Your task to perform on an android device: Open notification settings Image 0: 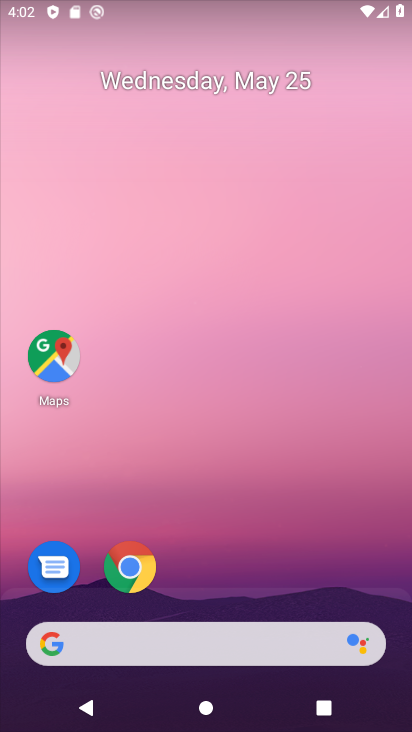
Step 0: drag from (213, 506) to (177, 36)
Your task to perform on an android device: Open notification settings Image 1: 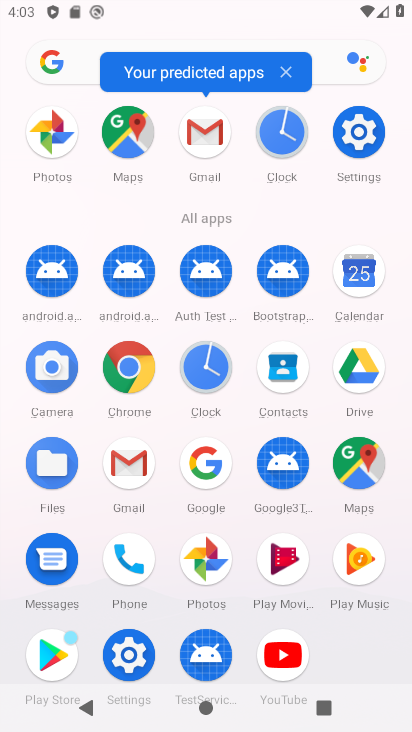
Step 1: drag from (0, 569) to (26, 252)
Your task to perform on an android device: Open notification settings Image 2: 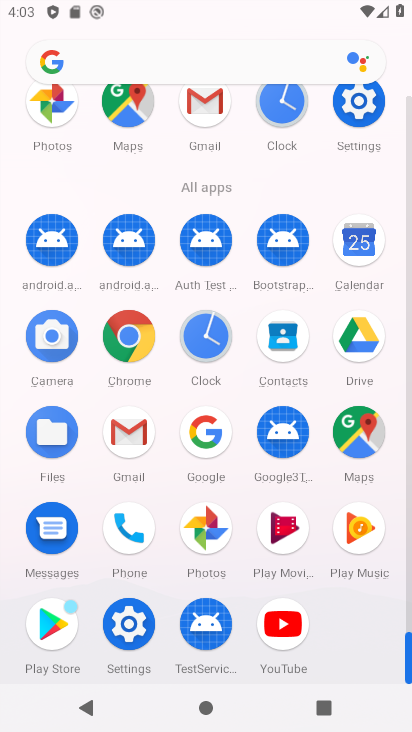
Step 2: click (127, 622)
Your task to perform on an android device: Open notification settings Image 3: 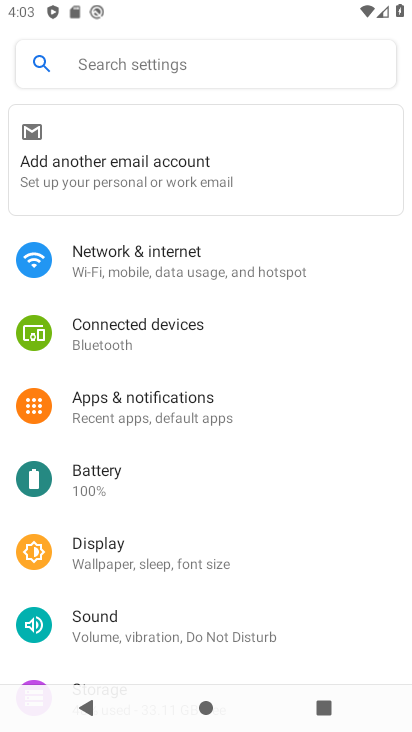
Step 3: click (155, 402)
Your task to perform on an android device: Open notification settings Image 4: 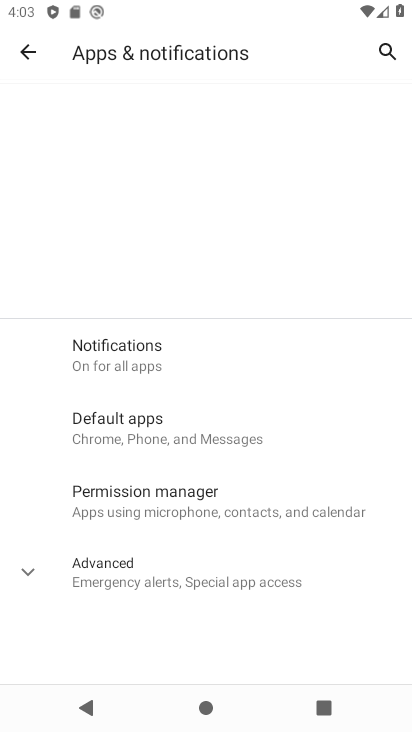
Step 4: click (40, 548)
Your task to perform on an android device: Open notification settings Image 5: 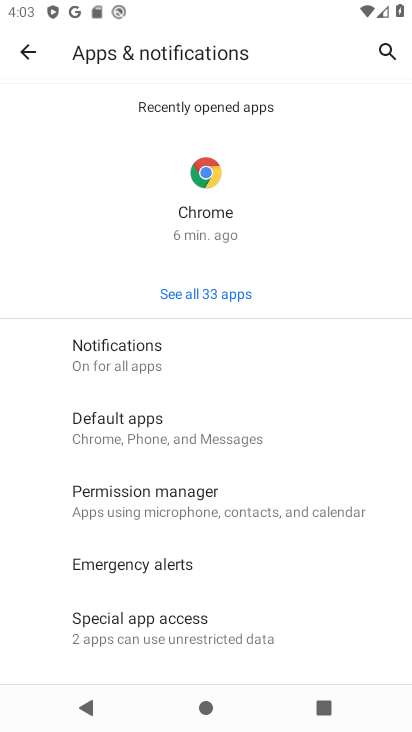
Step 5: click (161, 346)
Your task to perform on an android device: Open notification settings Image 6: 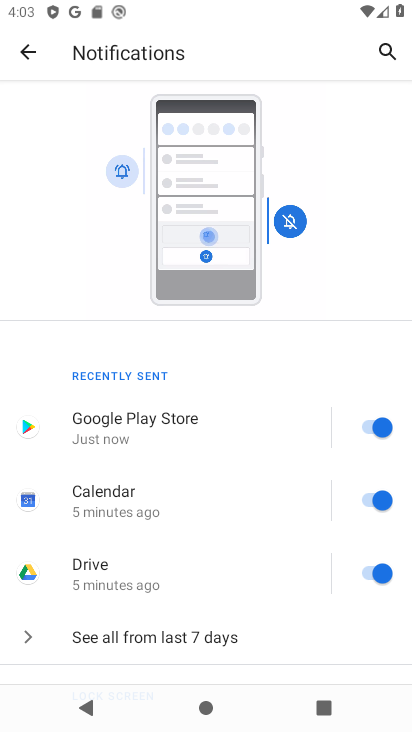
Step 6: drag from (205, 590) to (195, 140)
Your task to perform on an android device: Open notification settings Image 7: 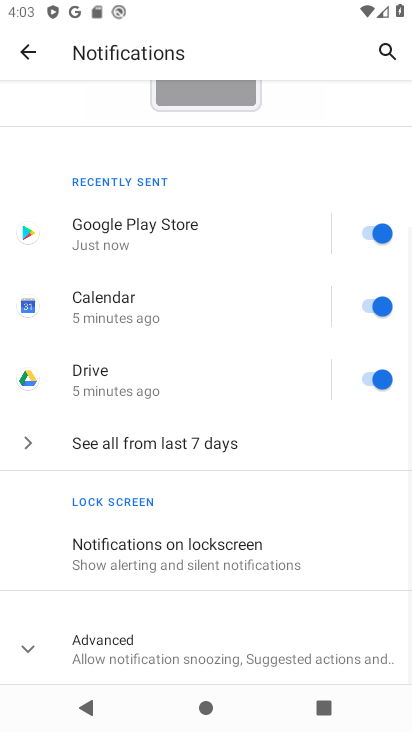
Step 7: drag from (199, 583) to (215, 230)
Your task to perform on an android device: Open notification settings Image 8: 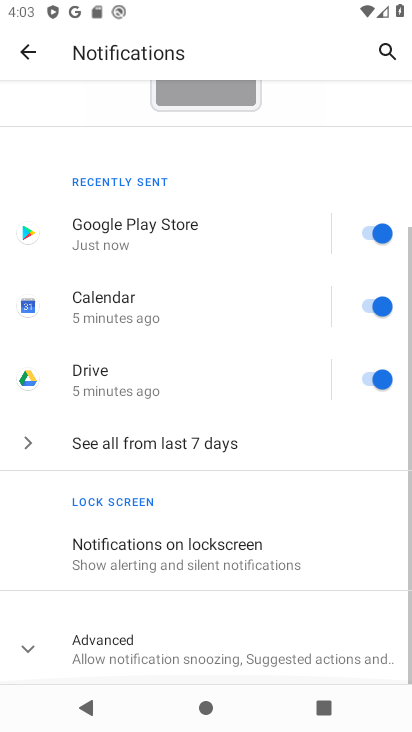
Step 8: click (34, 646)
Your task to perform on an android device: Open notification settings Image 9: 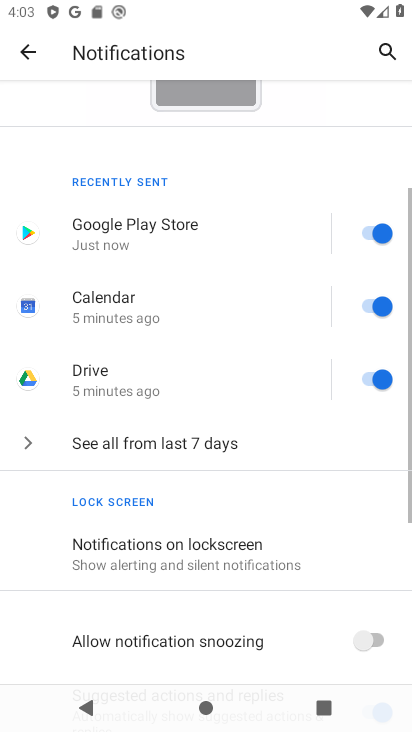
Step 9: task complete